Your task to perform on an android device: allow cookies in the chrome app Image 0: 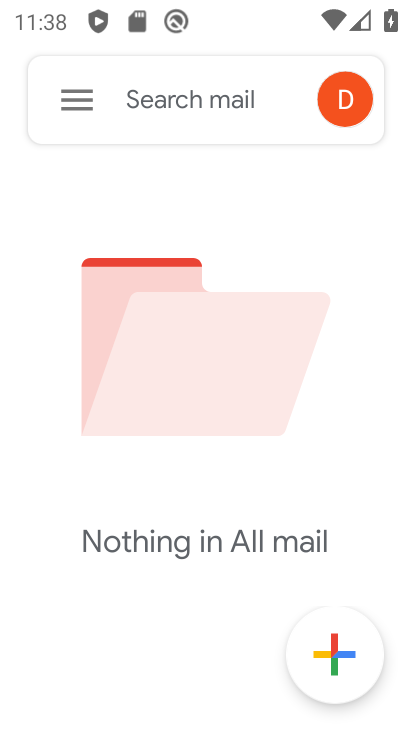
Step 0: press home button
Your task to perform on an android device: allow cookies in the chrome app Image 1: 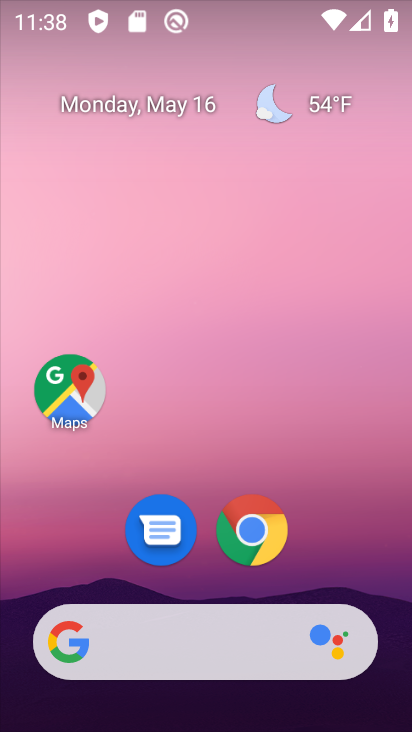
Step 1: drag from (371, 568) to (375, 116)
Your task to perform on an android device: allow cookies in the chrome app Image 2: 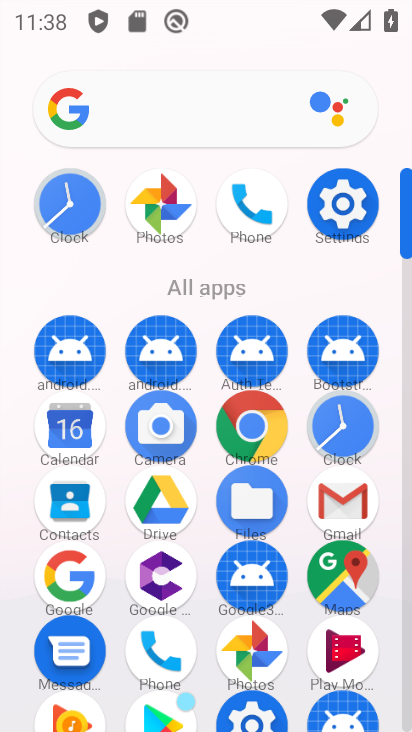
Step 2: click (274, 431)
Your task to perform on an android device: allow cookies in the chrome app Image 3: 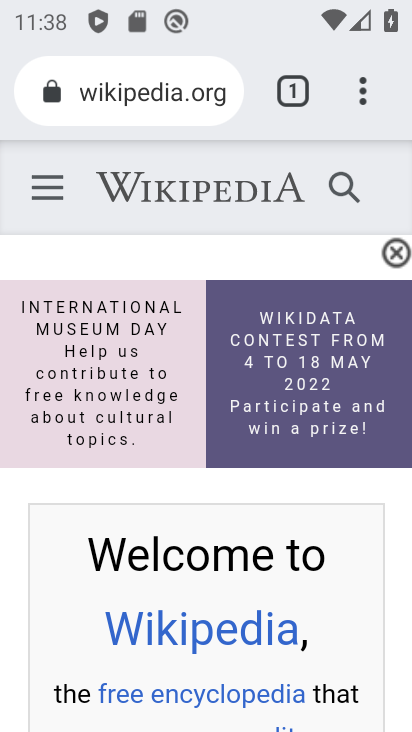
Step 3: click (361, 105)
Your task to perform on an android device: allow cookies in the chrome app Image 4: 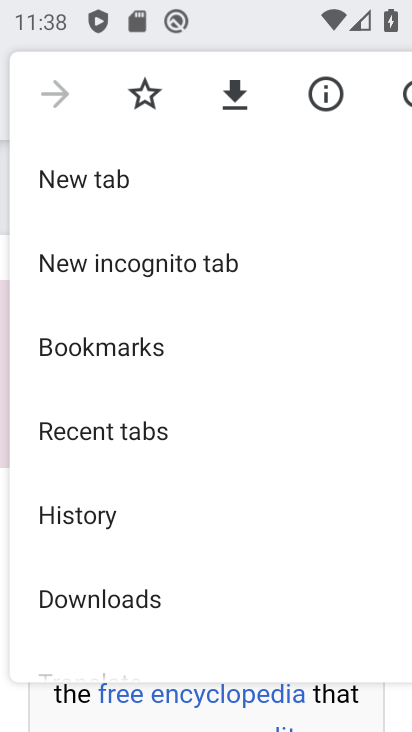
Step 4: drag from (311, 509) to (303, 349)
Your task to perform on an android device: allow cookies in the chrome app Image 5: 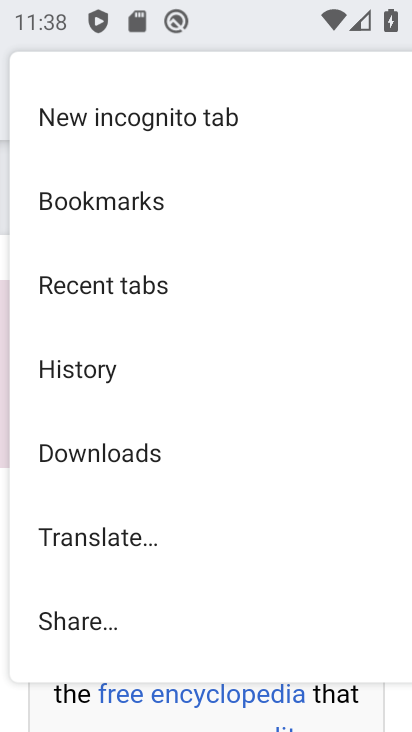
Step 5: drag from (307, 540) to (314, 405)
Your task to perform on an android device: allow cookies in the chrome app Image 6: 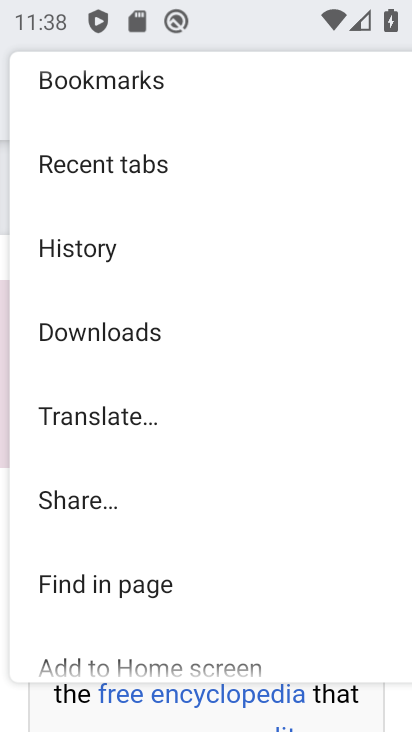
Step 6: drag from (296, 526) to (299, 376)
Your task to perform on an android device: allow cookies in the chrome app Image 7: 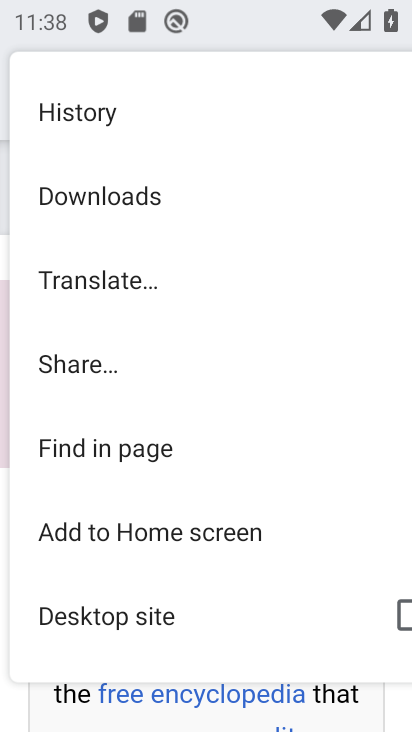
Step 7: drag from (305, 570) to (311, 444)
Your task to perform on an android device: allow cookies in the chrome app Image 8: 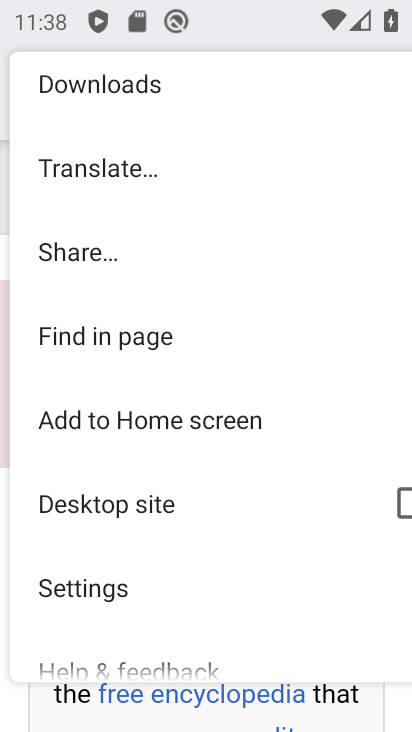
Step 8: click (109, 600)
Your task to perform on an android device: allow cookies in the chrome app Image 9: 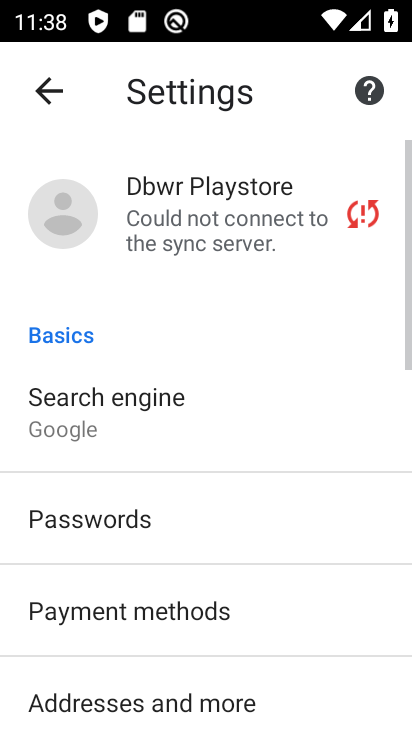
Step 9: drag from (310, 588) to (353, 398)
Your task to perform on an android device: allow cookies in the chrome app Image 10: 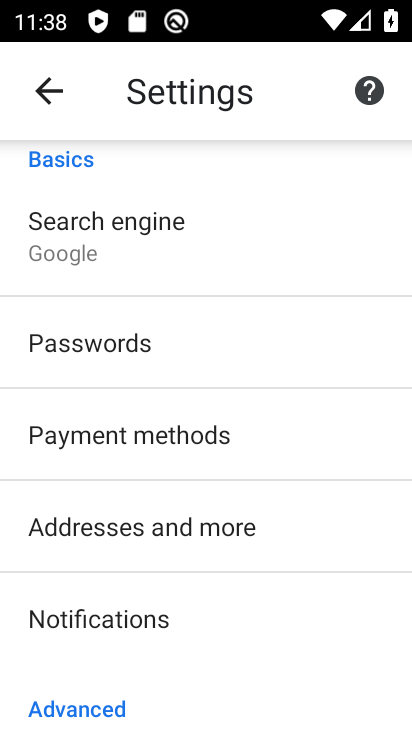
Step 10: drag from (344, 637) to (343, 478)
Your task to perform on an android device: allow cookies in the chrome app Image 11: 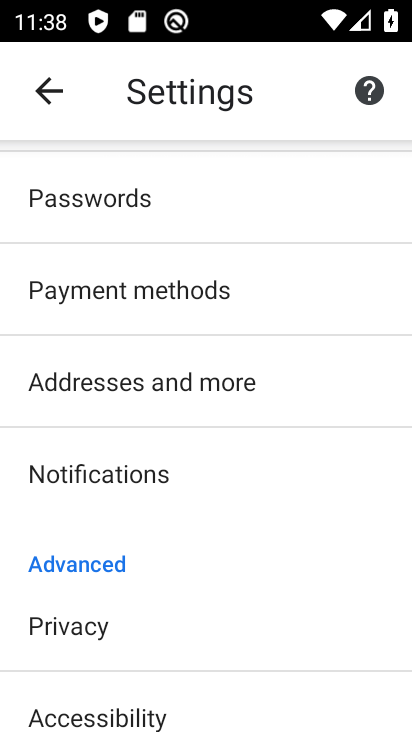
Step 11: drag from (336, 644) to (338, 515)
Your task to perform on an android device: allow cookies in the chrome app Image 12: 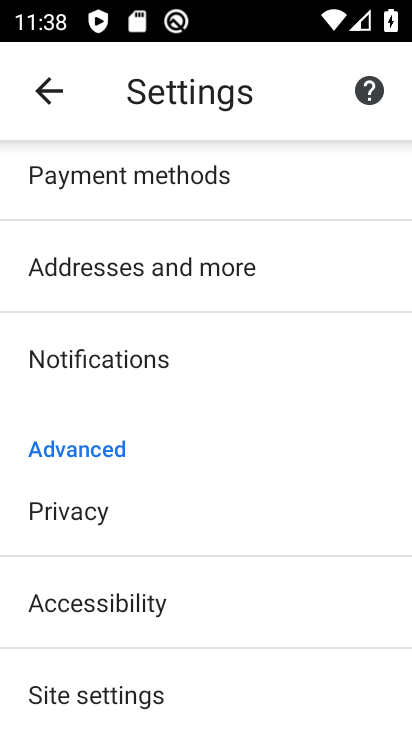
Step 12: drag from (310, 667) to (305, 536)
Your task to perform on an android device: allow cookies in the chrome app Image 13: 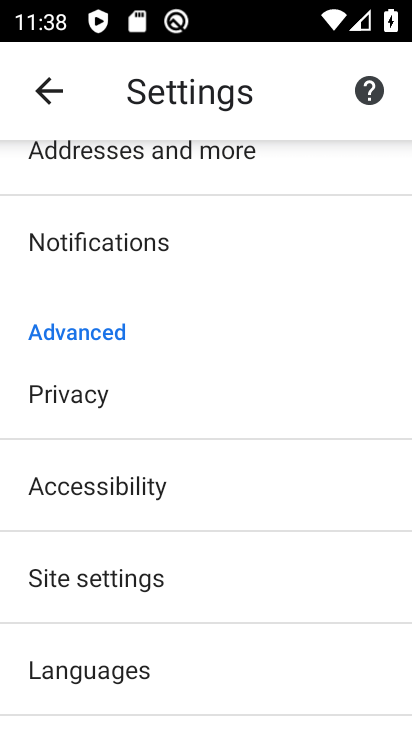
Step 13: drag from (294, 666) to (295, 571)
Your task to perform on an android device: allow cookies in the chrome app Image 14: 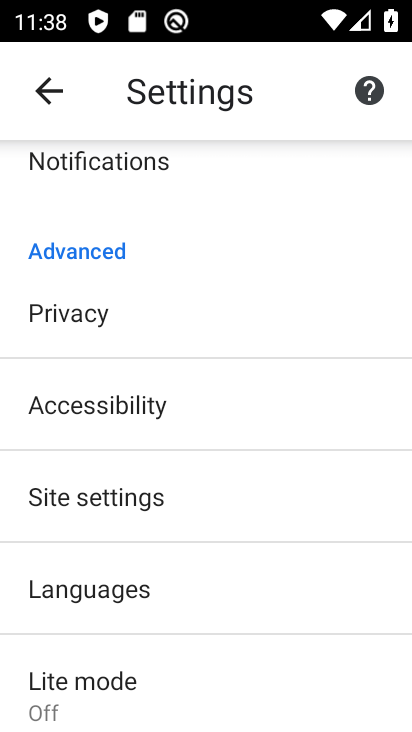
Step 14: drag from (272, 665) to (291, 578)
Your task to perform on an android device: allow cookies in the chrome app Image 15: 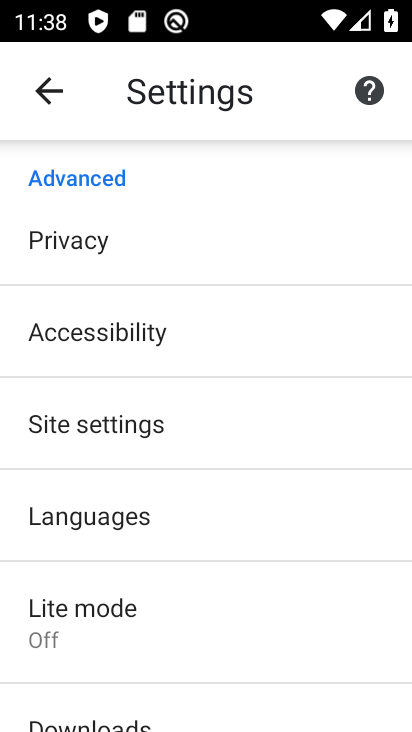
Step 15: drag from (280, 564) to (290, 524)
Your task to perform on an android device: allow cookies in the chrome app Image 16: 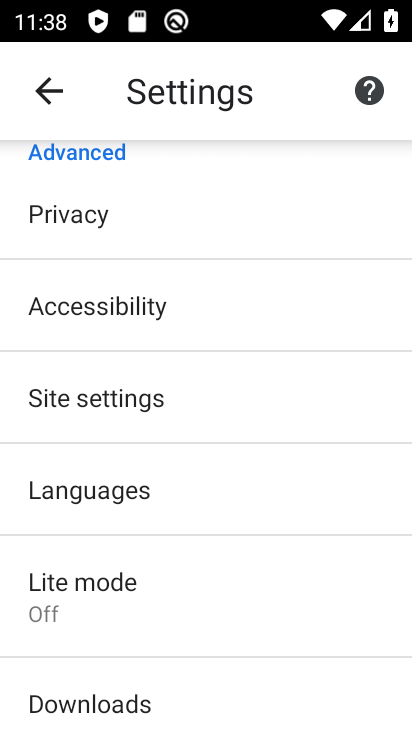
Step 16: drag from (268, 663) to (296, 544)
Your task to perform on an android device: allow cookies in the chrome app Image 17: 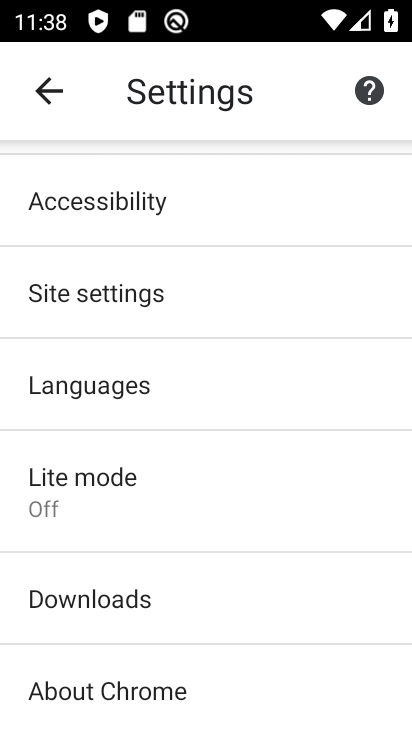
Step 17: drag from (274, 380) to (265, 494)
Your task to perform on an android device: allow cookies in the chrome app Image 18: 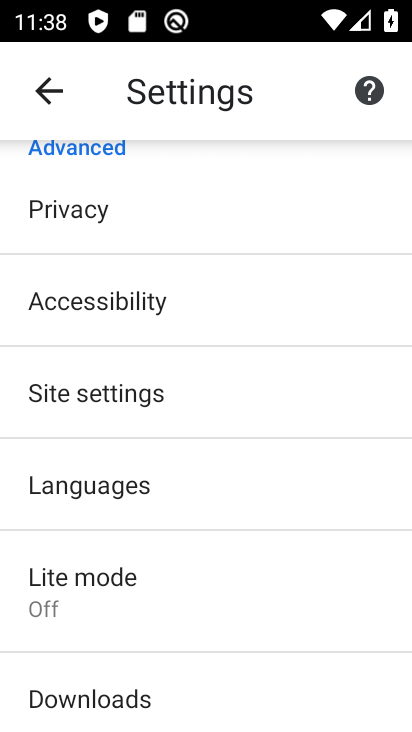
Step 18: drag from (280, 323) to (279, 441)
Your task to perform on an android device: allow cookies in the chrome app Image 19: 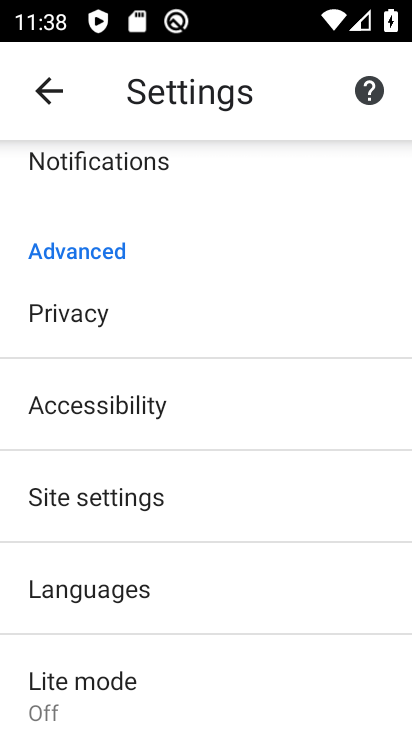
Step 19: drag from (283, 405) to (283, 472)
Your task to perform on an android device: allow cookies in the chrome app Image 20: 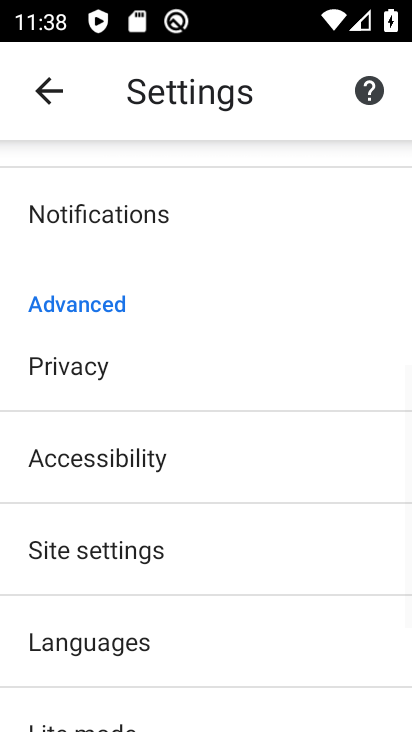
Step 20: drag from (284, 316) to (296, 409)
Your task to perform on an android device: allow cookies in the chrome app Image 21: 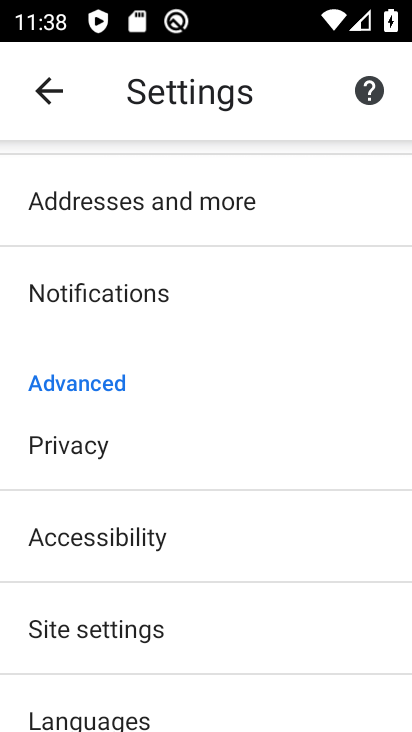
Step 21: drag from (294, 289) to (291, 412)
Your task to perform on an android device: allow cookies in the chrome app Image 22: 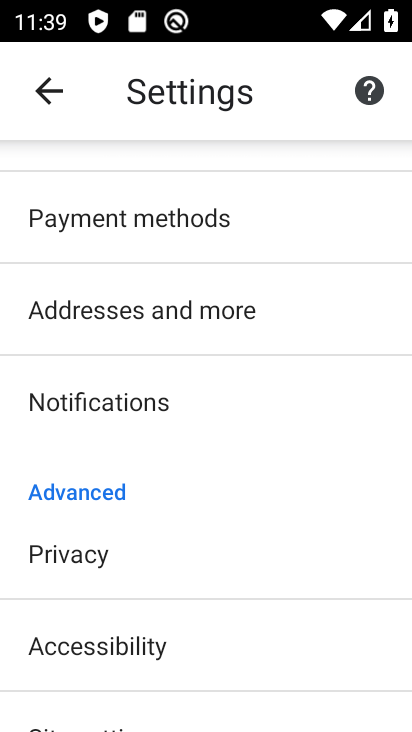
Step 22: drag from (312, 590) to (282, 433)
Your task to perform on an android device: allow cookies in the chrome app Image 23: 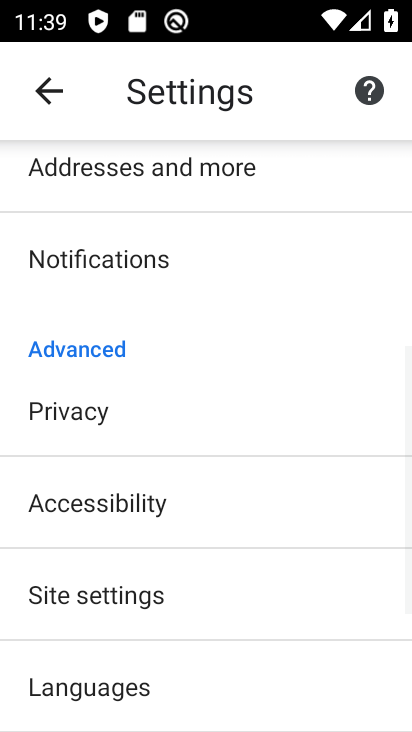
Step 23: click (259, 577)
Your task to perform on an android device: allow cookies in the chrome app Image 24: 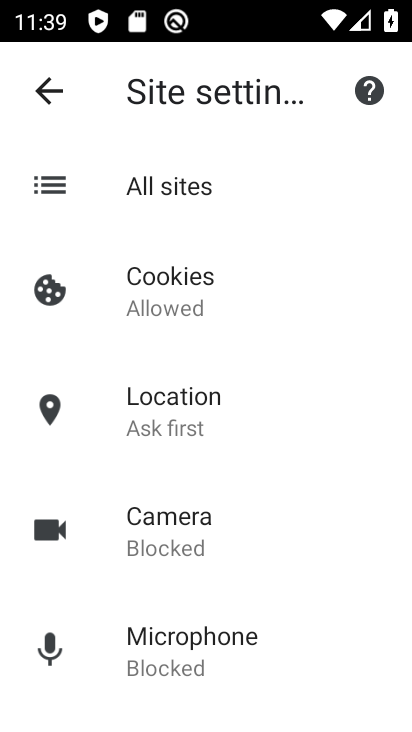
Step 24: click (216, 301)
Your task to perform on an android device: allow cookies in the chrome app Image 25: 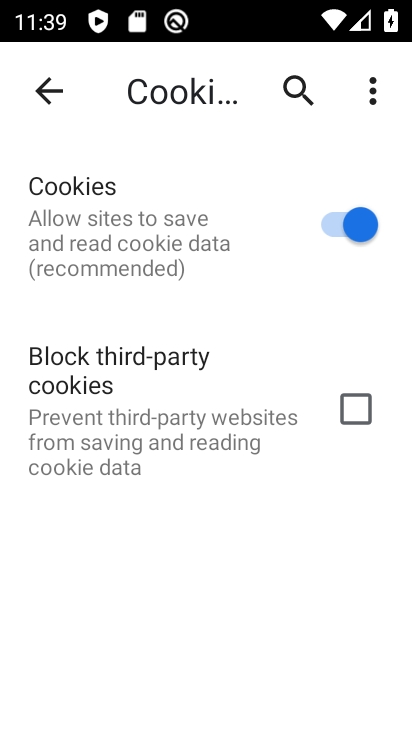
Step 25: task complete